Your task to perform on an android device: Go to Maps Image 0: 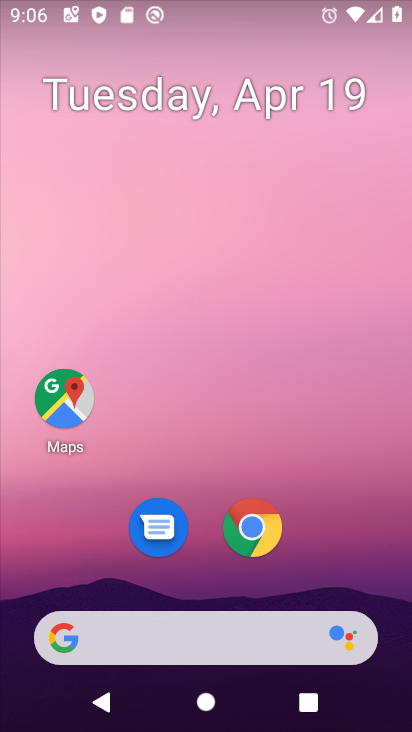
Step 0: drag from (335, 566) to (324, 131)
Your task to perform on an android device: Go to Maps Image 1: 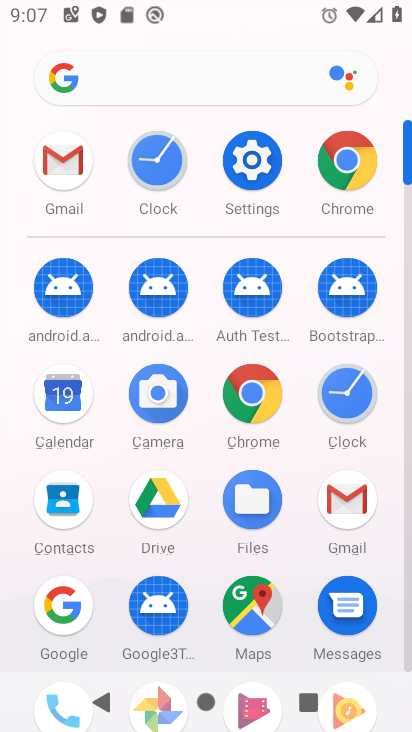
Step 1: click (260, 601)
Your task to perform on an android device: Go to Maps Image 2: 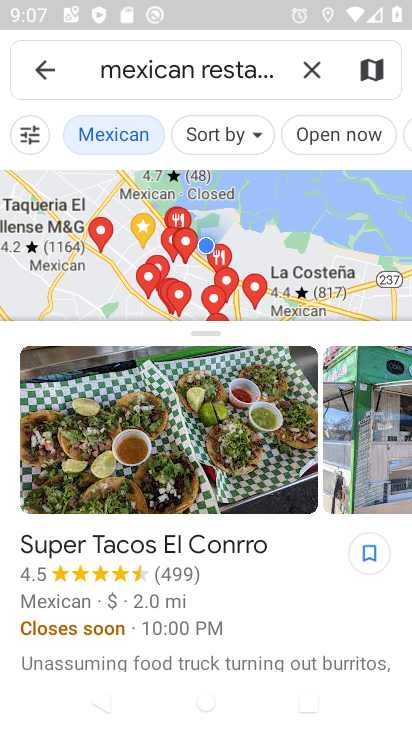
Step 2: task complete